Your task to perform on an android device: Is it going to rain this weekend? Image 0: 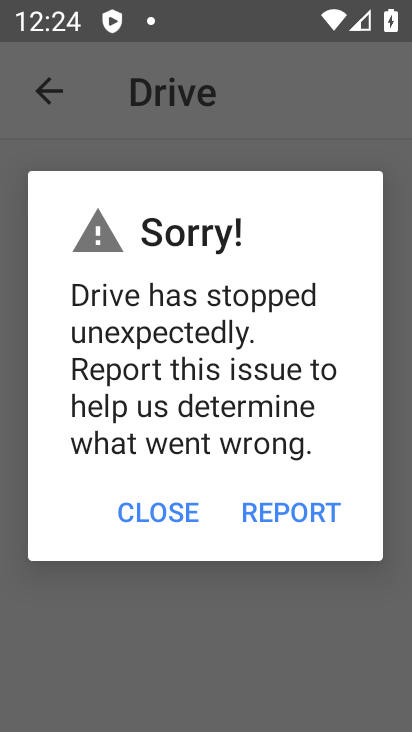
Step 0: click (185, 501)
Your task to perform on an android device: Is it going to rain this weekend? Image 1: 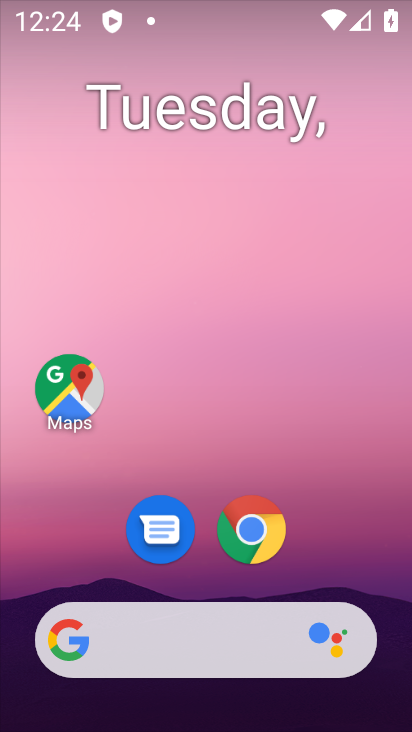
Step 1: click (269, 514)
Your task to perform on an android device: Is it going to rain this weekend? Image 2: 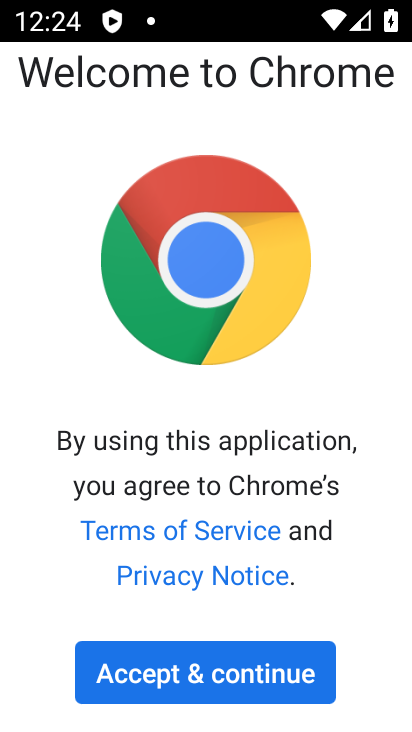
Step 2: click (235, 677)
Your task to perform on an android device: Is it going to rain this weekend? Image 3: 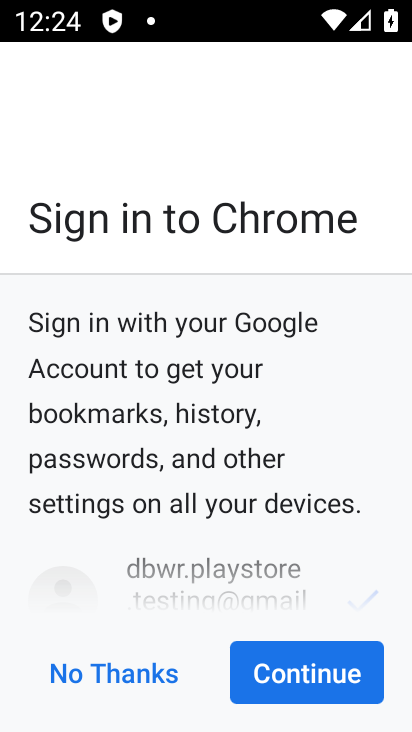
Step 3: click (273, 673)
Your task to perform on an android device: Is it going to rain this weekend? Image 4: 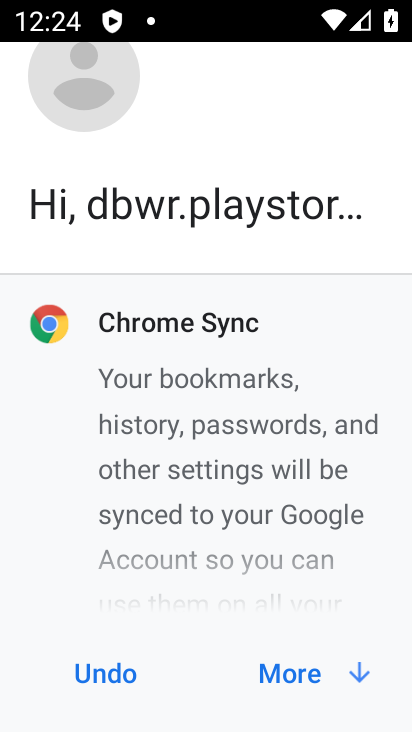
Step 4: click (292, 661)
Your task to perform on an android device: Is it going to rain this weekend? Image 5: 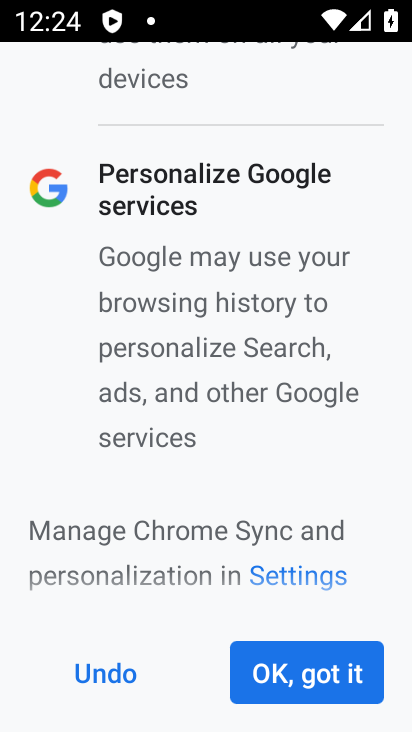
Step 5: click (295, 655)
Your task to perform on an android device: Is it going to rain this weekend? Image 6: 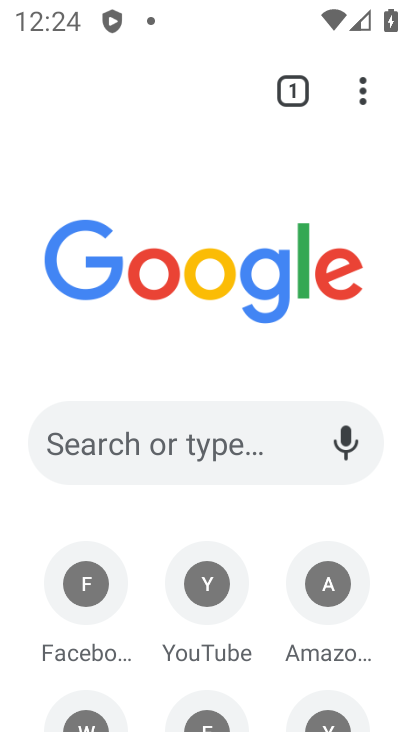
Step 6: click (255, 427)
Your task to perform on an android device: Is it going to rain this weekend? Image 7: 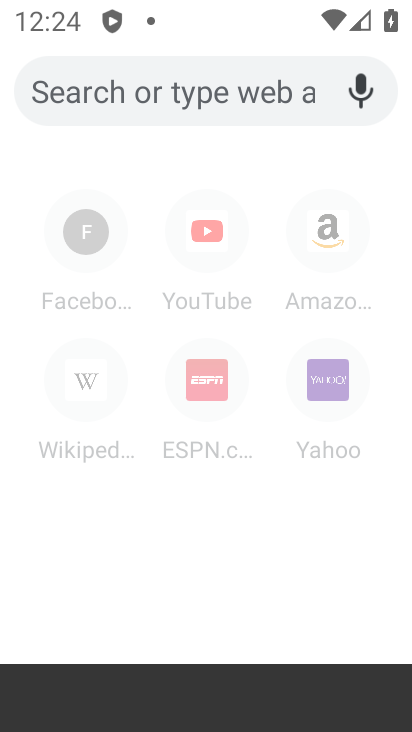
Step 7: type "Is it going to rain this weekend?"
Your task to perform on an android device: Is it going to rain this weekend? Image 8: 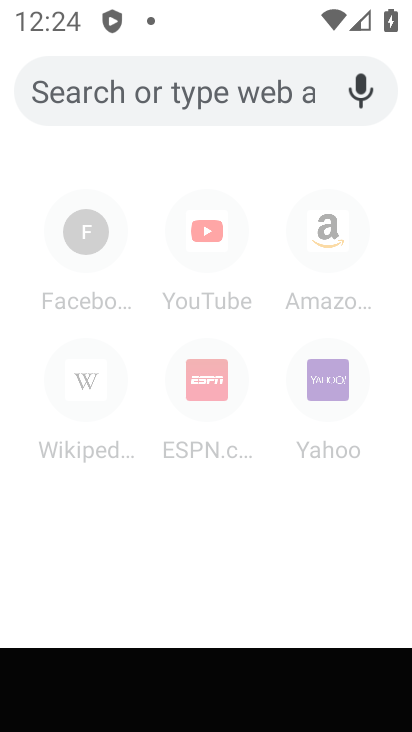
Step 8: click (170, 89)
Your task to perform on an android device: Is it going to rain this weekend? Image 9: 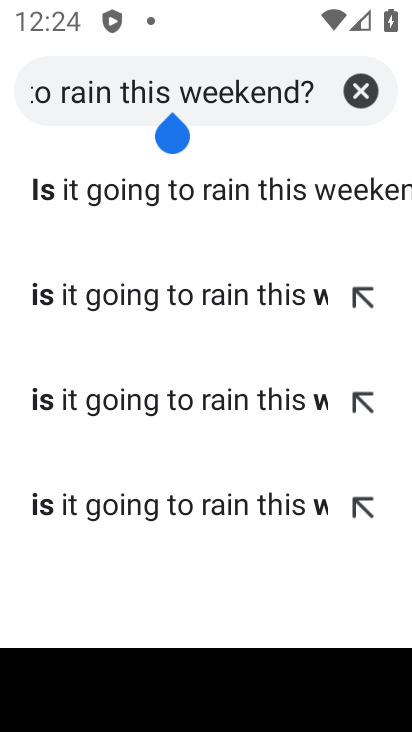
Step 9: click (192, 207)
Your task to perform on an android device: Is it going to rain this weekend? Image 10: 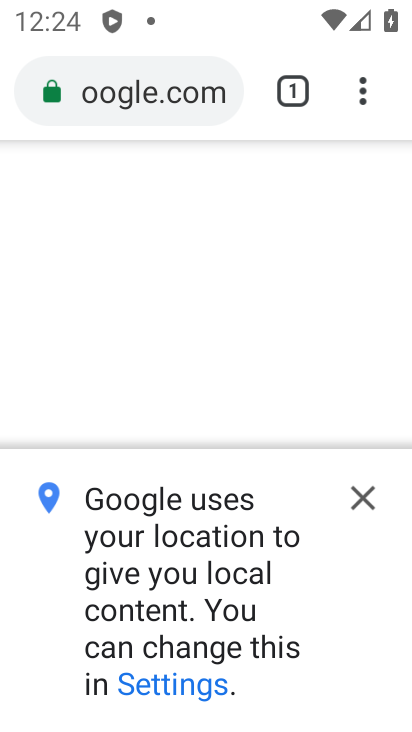
Step 10: click (357, 495)
Your task to perform on an android device: Is it going to rain this weekend? Image 11: 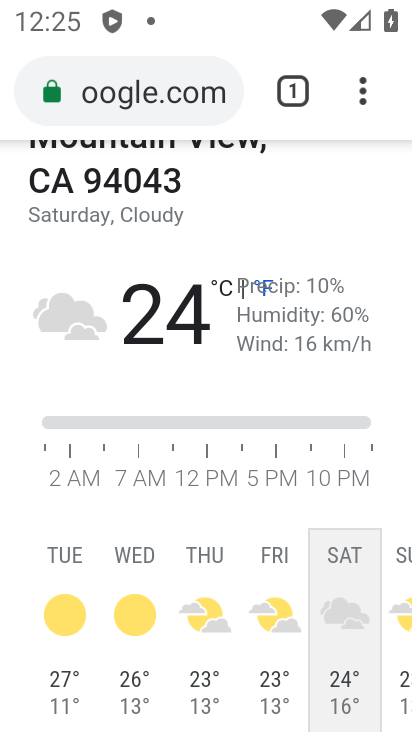
Step 11: task complete